Your task to perform on an android device: Open maps Image 0: 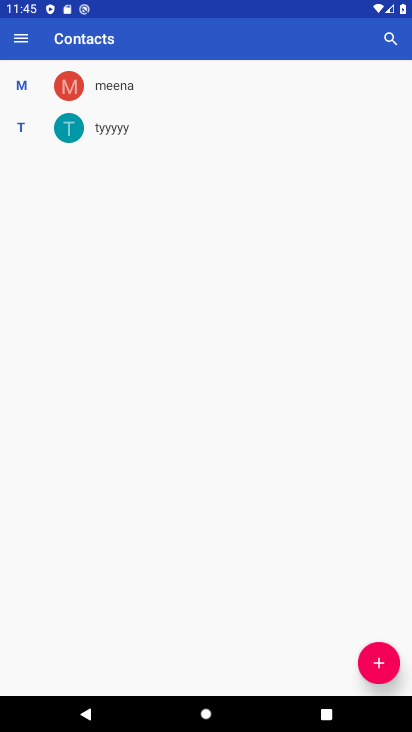
Step 0: press home button
Your task to perform on an android device: Open maps Image 1: 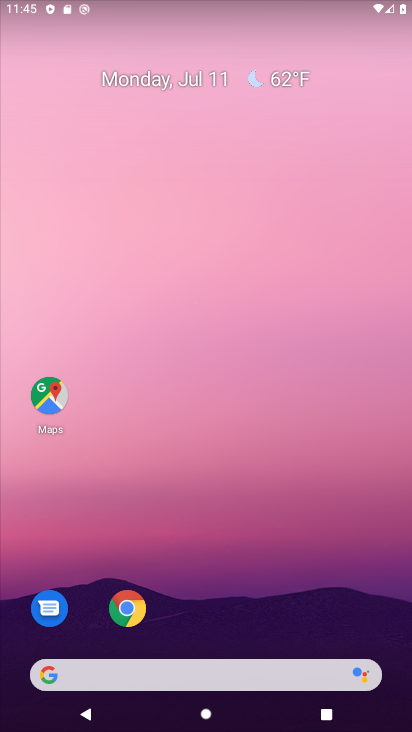
Step 1: drag from (329, 609) to (212, 28)
Your task to perform on an android device: Open maps Image 2: 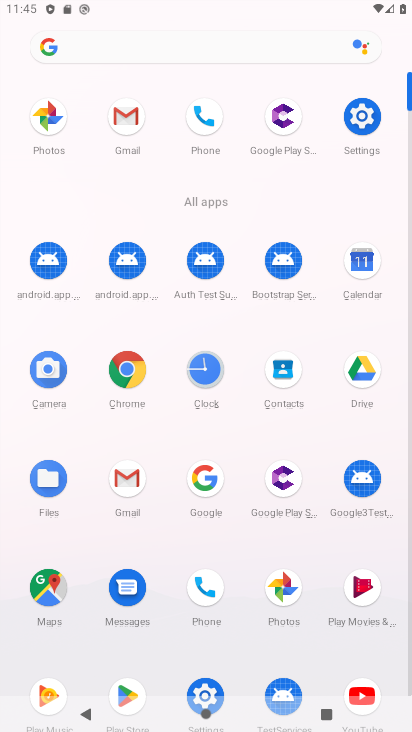
Step 2: click (34, 598)
Your task to perform on an android device: Open maps Image 3: 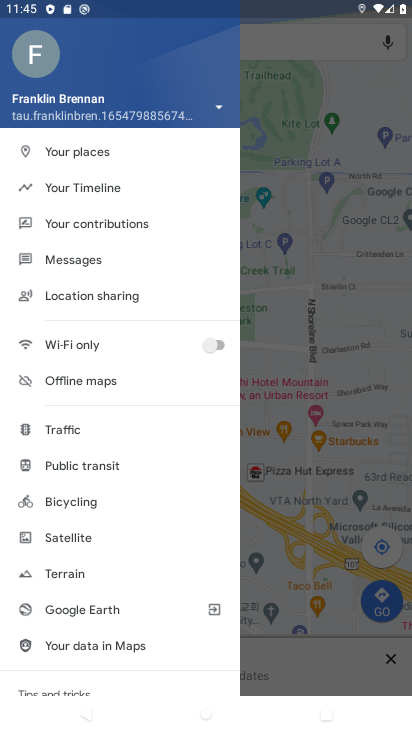
Step 3: task complete